Your task to perform on an android device: Go to calendar. Show me events next week Image 0: 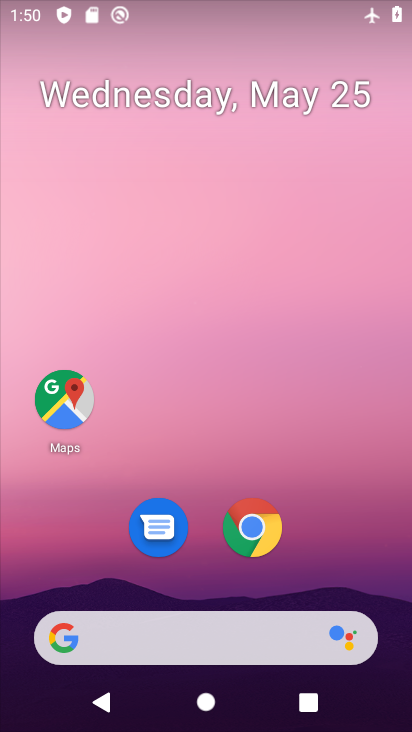
Step 0: drag from (127, 79) to (164, 430)
Your task to perform on an android device: Go to calendar. Show me events next week Image 1: 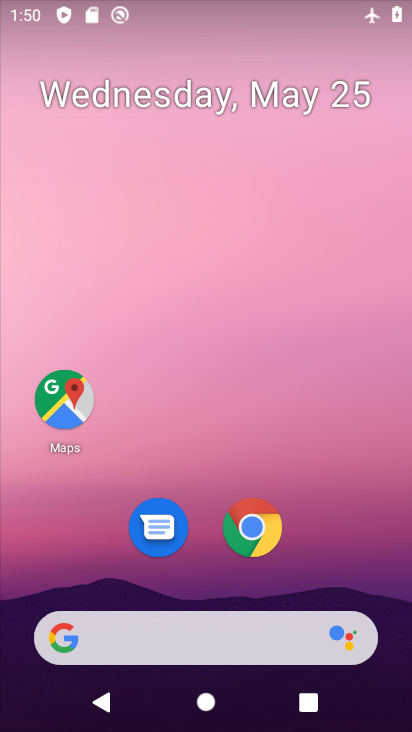
Step 1: drag from (239, 513) to (280, 39)
Your task to perform on an android device: Go to calendar. Show me events next week Image 2: 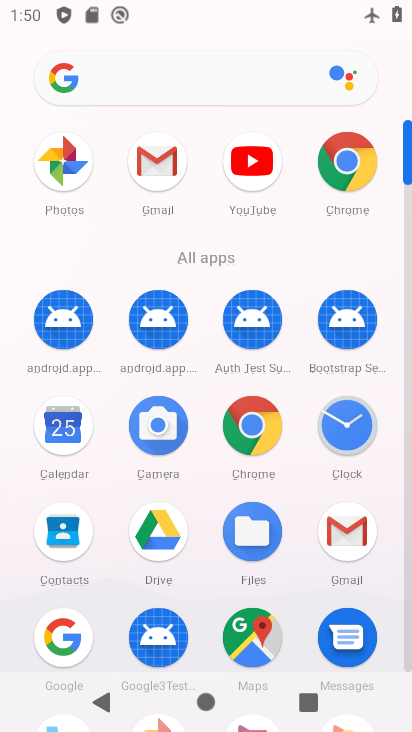
Step 2: click (62, 432)
Your task to perform on an android device: Go to calendar. Show me events next week Image 3: 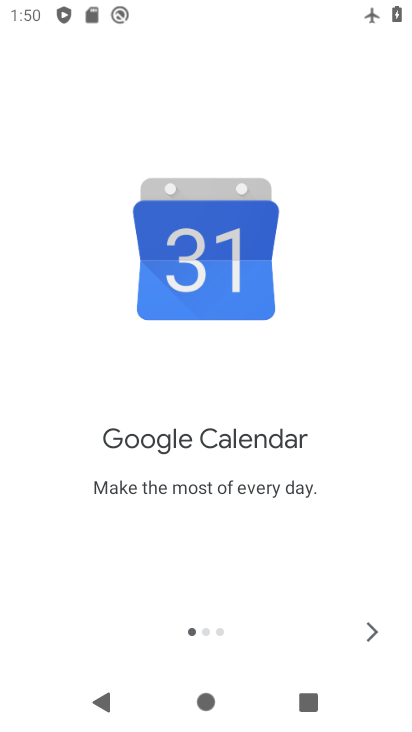
Step 3: click (356, 637)
Your task to perform on an android device: Go to calendar. Show me events next week Image 4: 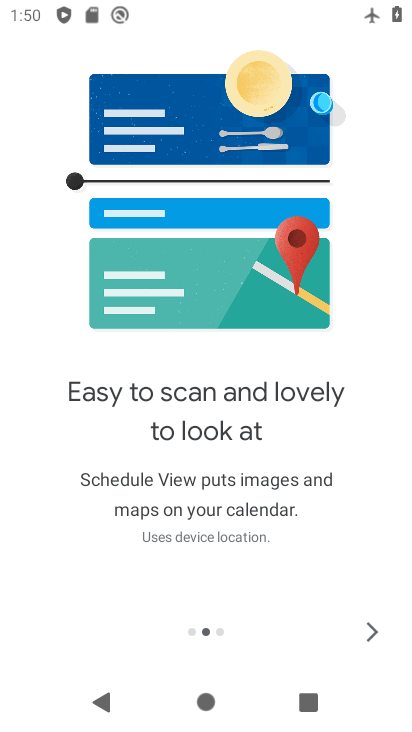
Step 4: click (354, 620)
Your task to perform on an android device: Go to calendar. Show me events next week Image 5: 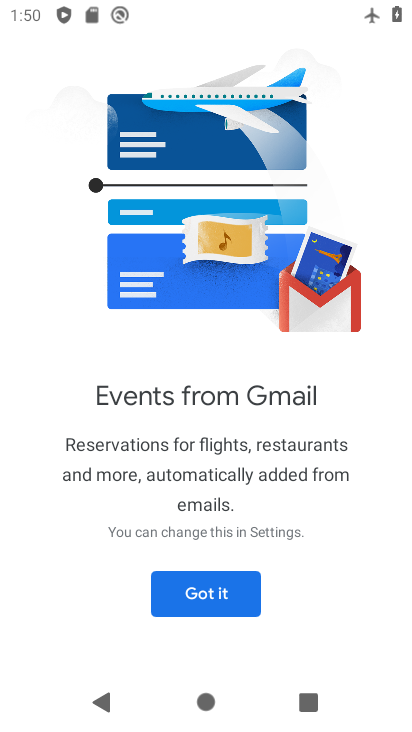
Step 5: click (203, 603)
Your task to perform on an android device: Go to calendar. Show me events next week Image 6: 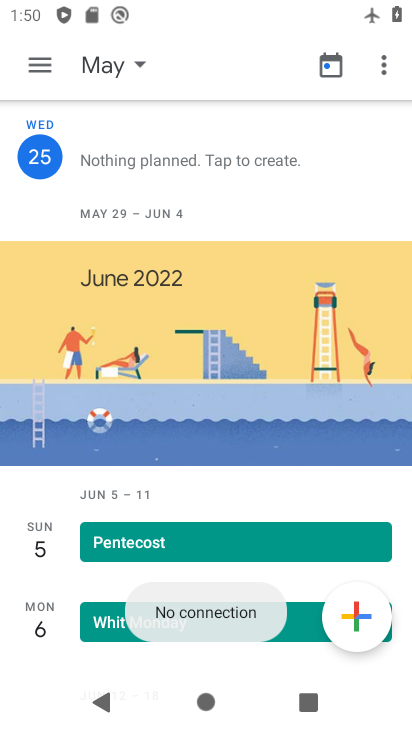
Step 6: press home button
Your task to perform on an android device: Go to calendar. Show me events next week Image 7: 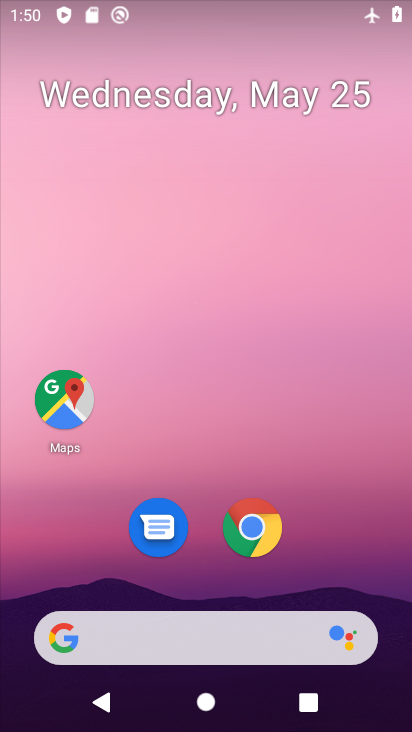
Step 7: drag from (210, 459) to (251, 73)
Your task to perform on an android device: Go to calendar. Show me events next week Image 8: 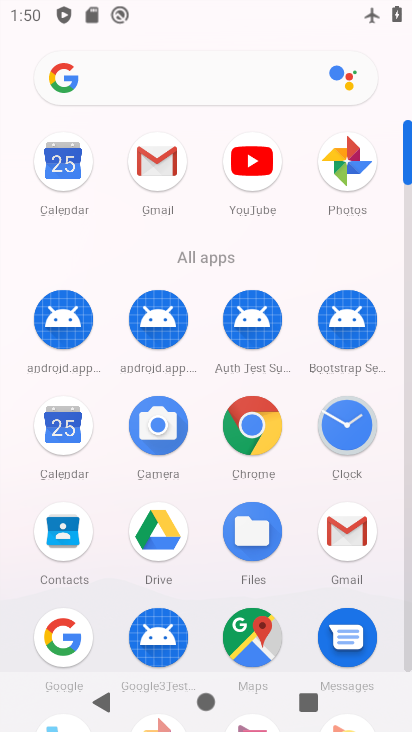
Step 8: click (61, 147)
Your task to perform on an android device: Go to calendar. Show me events next week Image 9: 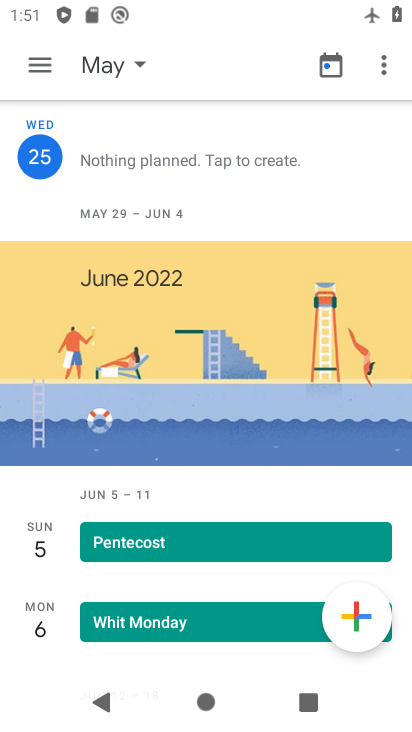
Step 9: click (134, 62)
Your task to perform on an android device: Go to calendar. Show me events next week Image 10: 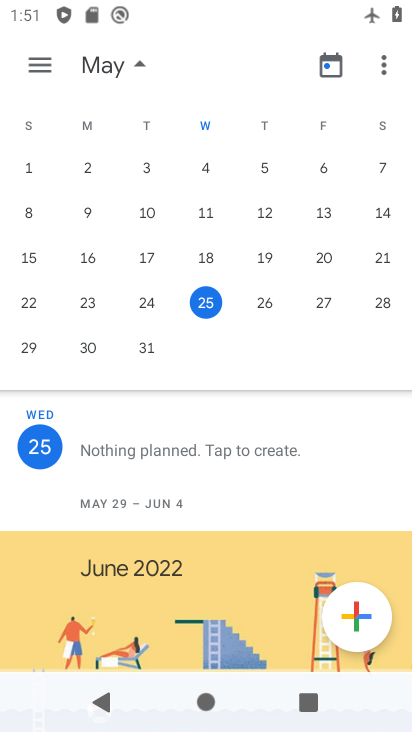
Step 10: click (202, 300)
Your task to perform on an android device: Go to calendar. Show me events next week Image 11: 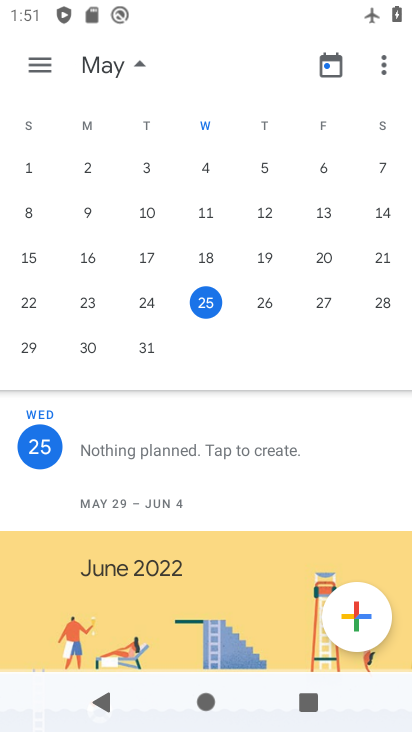
Step 11: click (76, 345)
Your task to perform on an android device: Go to calendar. Show me events next week Image 12: 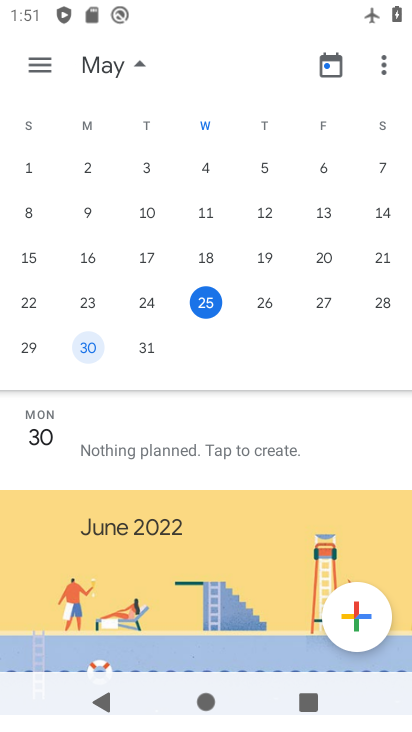
Step 12: drag from (156, 583) to (241, 82)
Your task to perform on an android device: Go to calendar. Show me events next week Image 13: 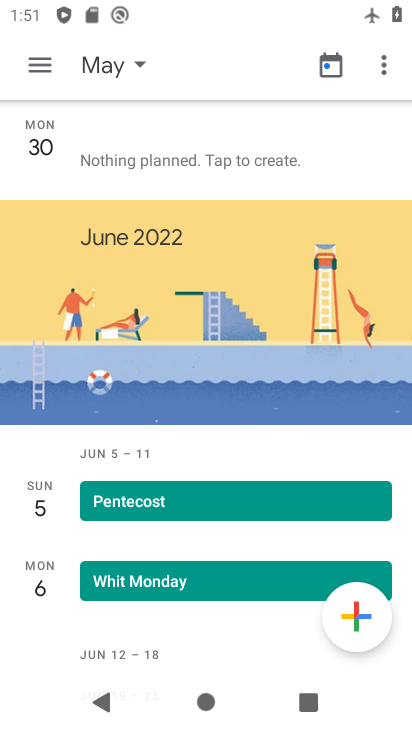
Step 13: click (25, 61)
Your task to perform on an android device: Go to calendar. Show me events next week Image 14: 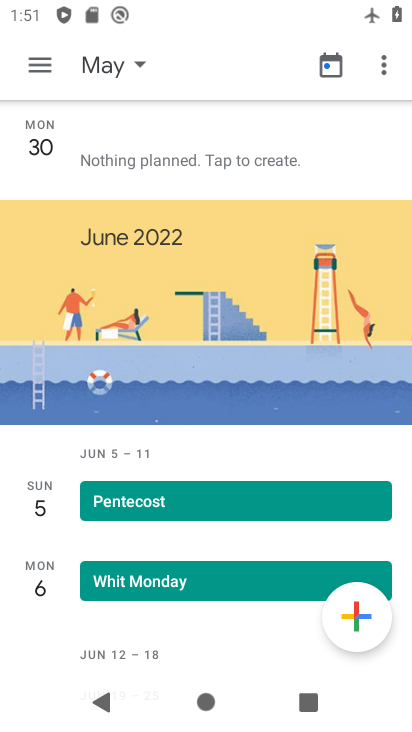
Step 14: click (35, 56)
Your task to perform on an android device: Go to calendar. Show me events next week Image 15: 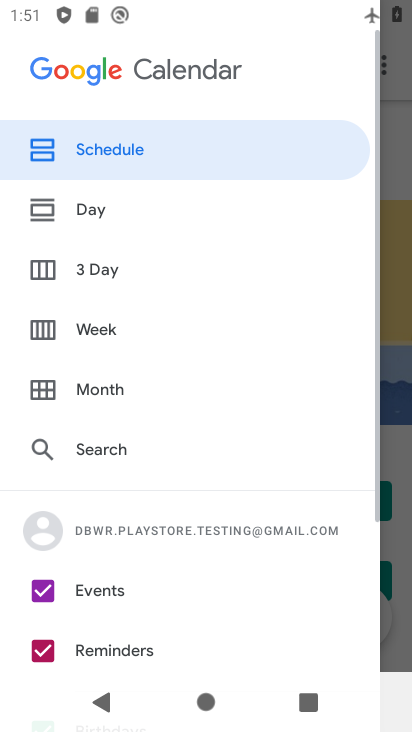
Step 15: click (99, 137)
Your task to perform on an android device: Go to calendar. Show me events next week Image 16: 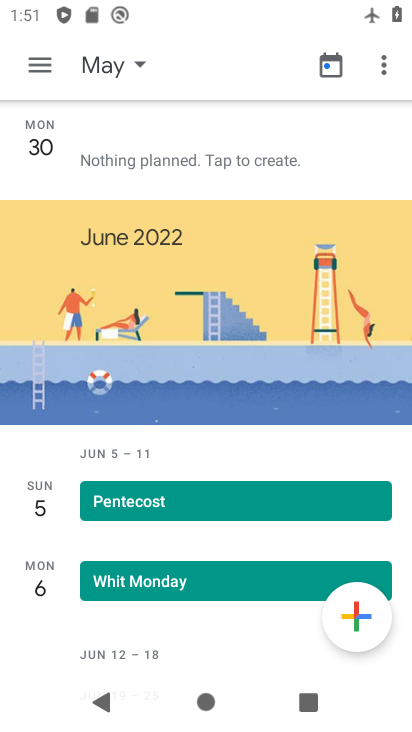
Step 16: task complete